Your task to perform on an android device: Open Maps and search for coffee Image 0: 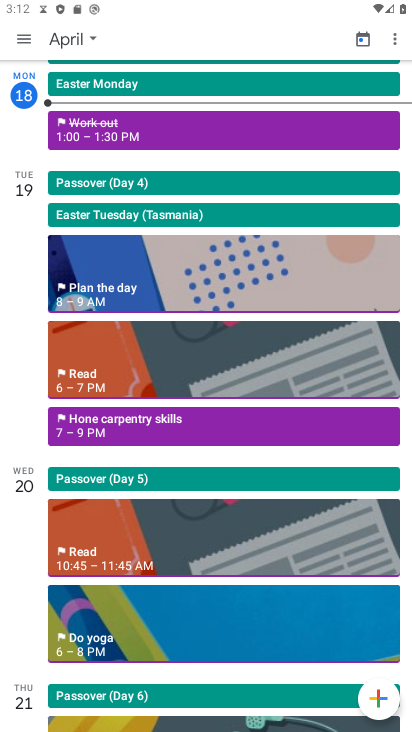
Step 0: press home button
Your task to perform on an android device: Open Maps and search for coffee Image 1: 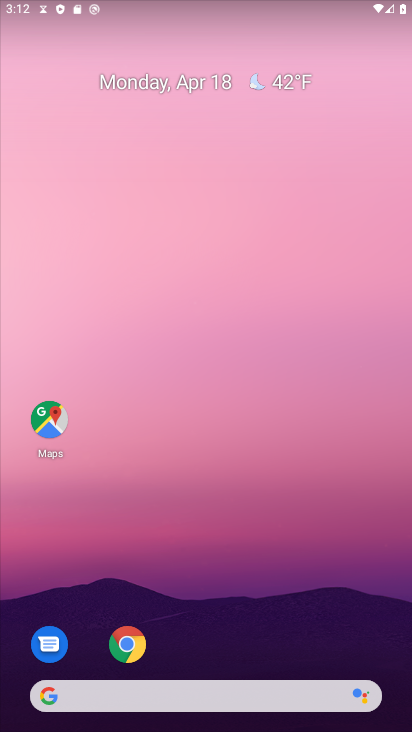
Step 1: click (54, 412)
Your task to perform on an android device: Open Maps and search for coffee Image 2: 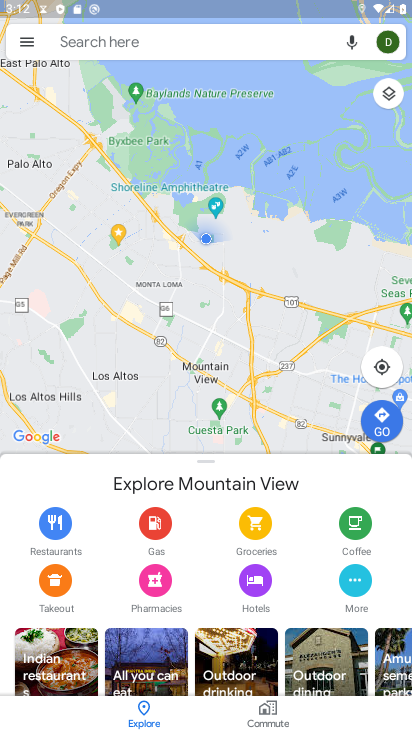
Step 2: click (183, 53)
Your task to perform on an android device: Open Maps and search for coffee Image 3: 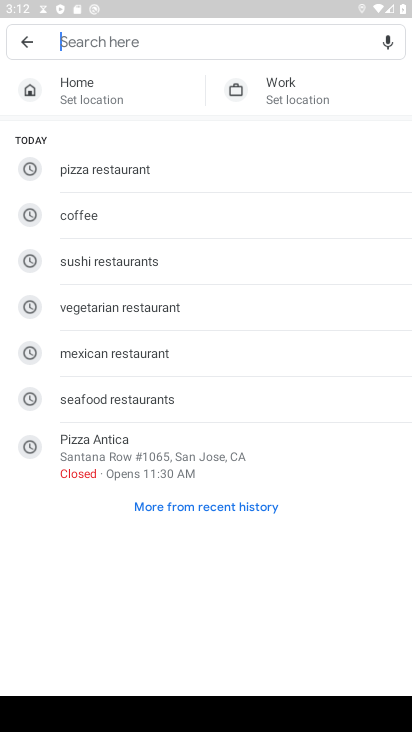
Step 3: click (100, 218)
Your task to perform on an android device: Open Maps and search for coffee Image 4: 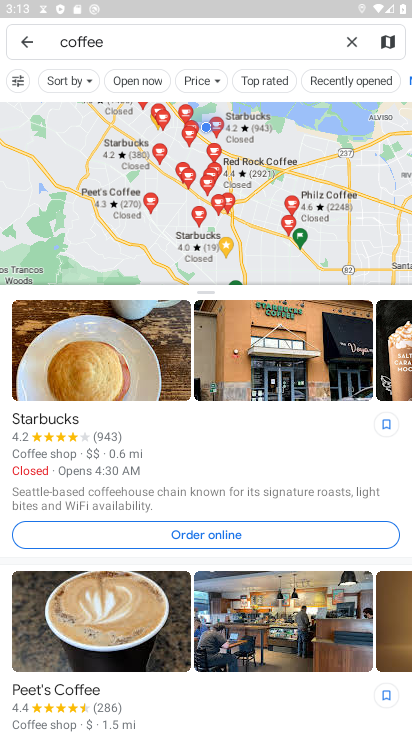
Step 4: task complete